Your task to perform on an android device: Go to location settings Image 0: 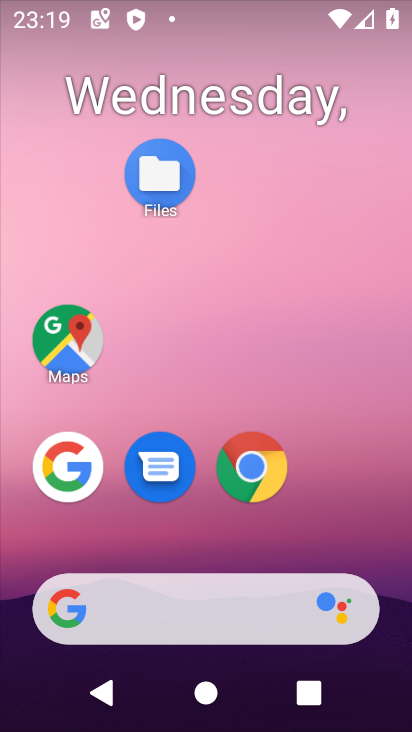
Step 0: drag from (199, 559) to (180, 2)
Your task to perform on an android device: Go to location settings Image 1: 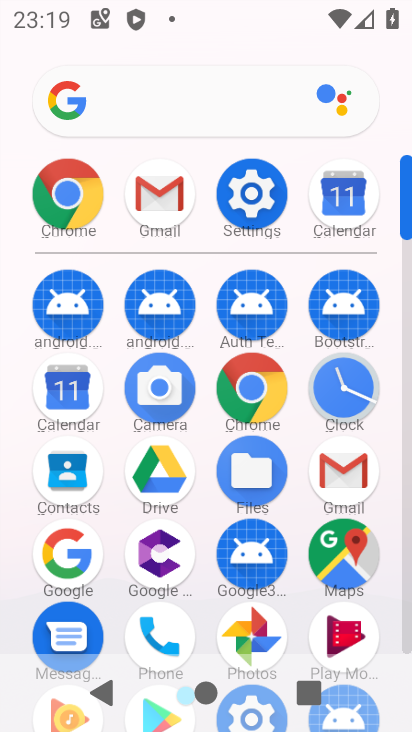
Step 1: click (258, 182)
Your task to perform on an android device: Go to location settings Image 2: 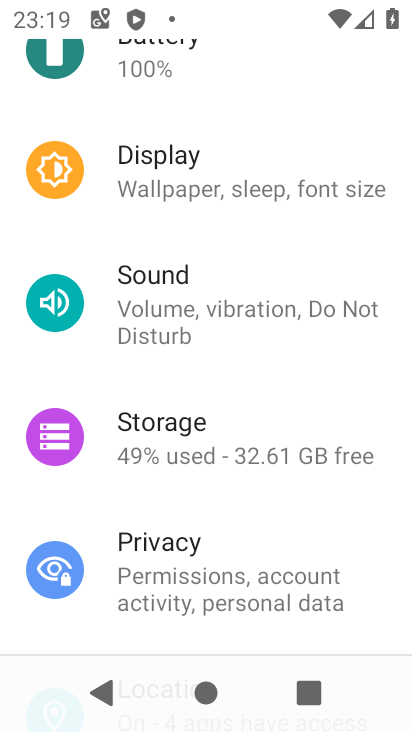
Step 2: drag from (196, 387) to (171, 136)
Your task to perform on an android device: Go to location settings Image 3: 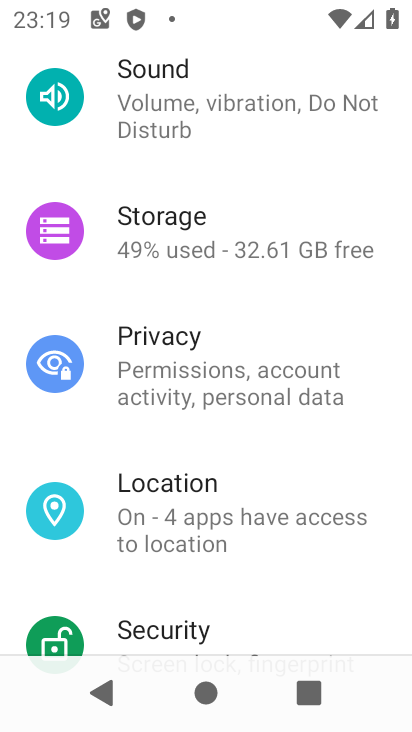
Step 3: click (190, 458)
Your task to perform on an android device: Go to location settings Image 4: 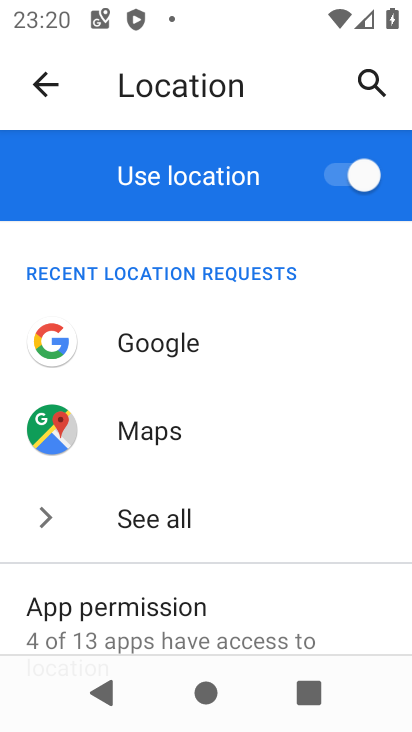
Step 4: task complete